Your task to perform on an android device: change the clock display to analog Image 0: 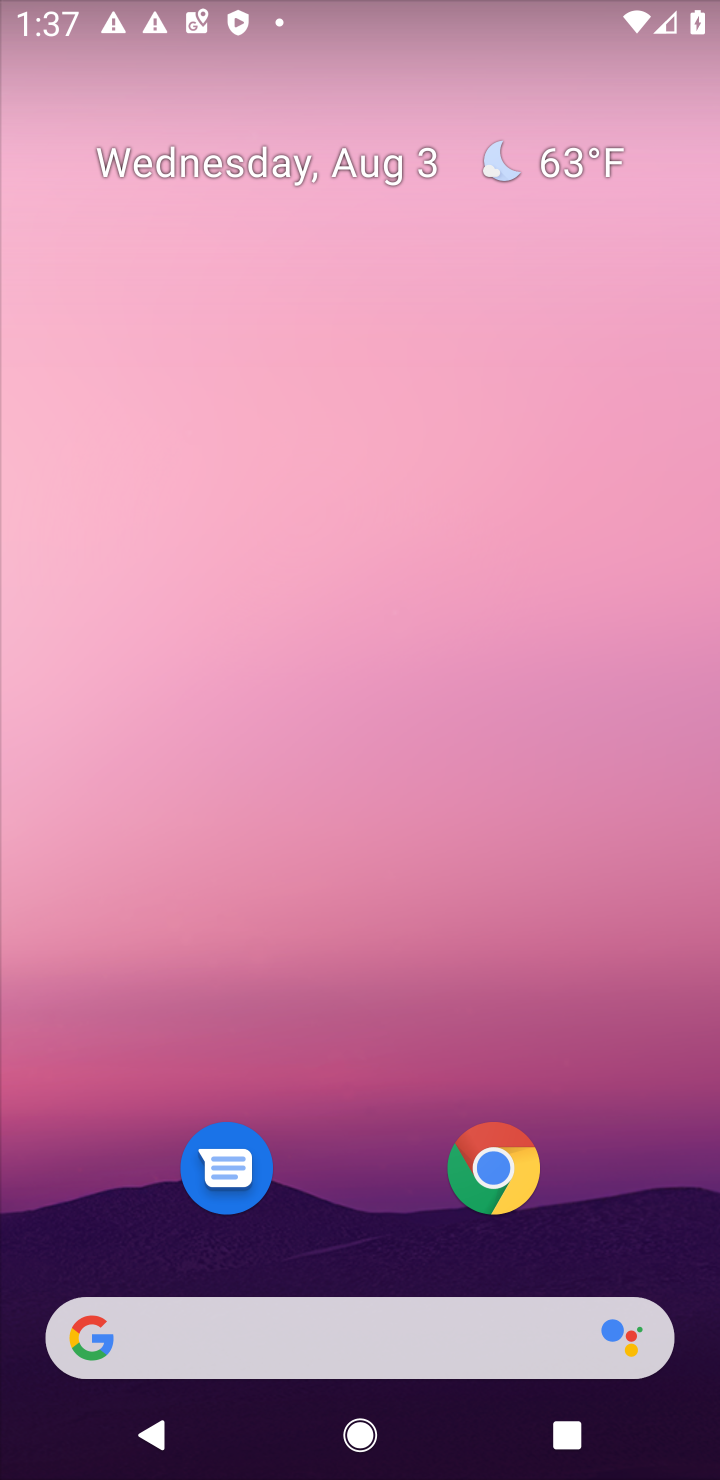
Step 0: drag from (665, 1214) to (590, 238)
Your task to perform on an android device: change the clock display to analog Image 1: 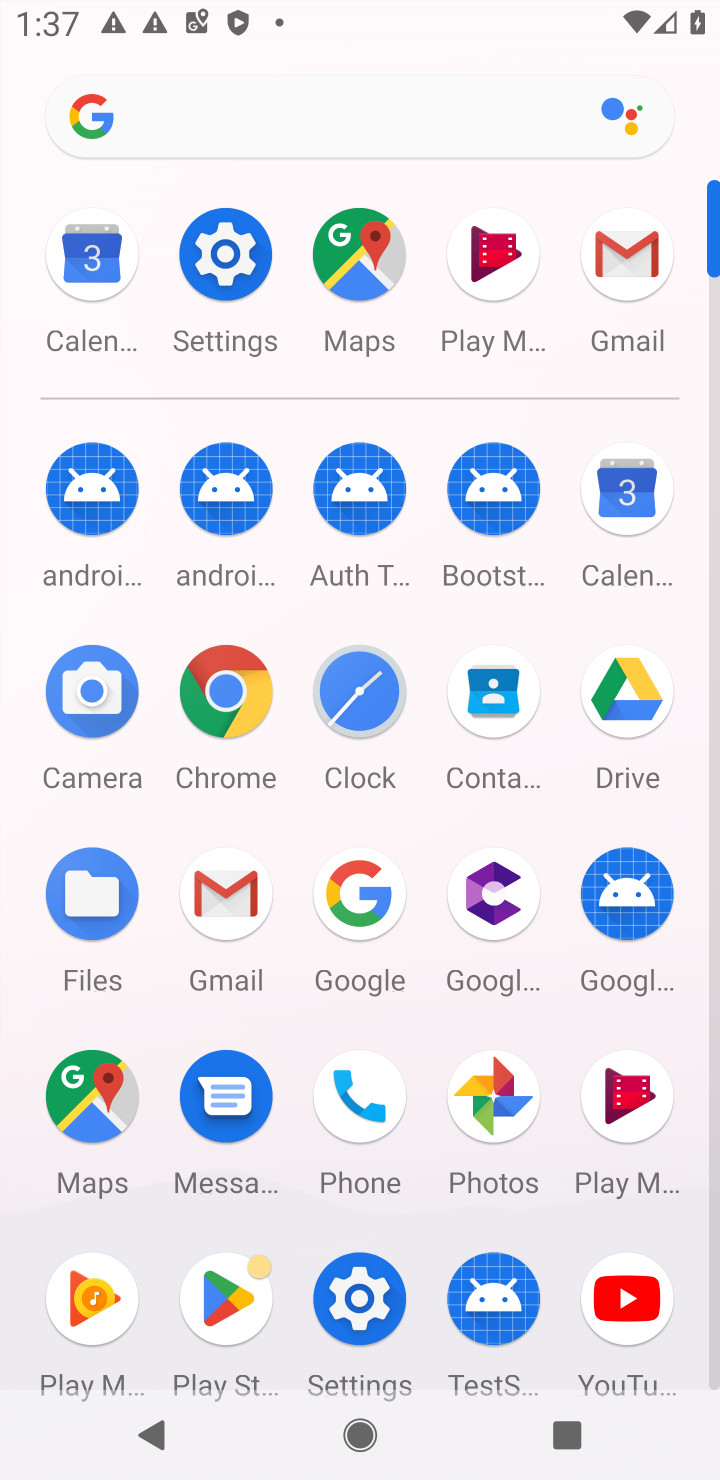
Step 1: click (354, 680)
Your task to perform on an android device: change the clock display to analog Image 2: 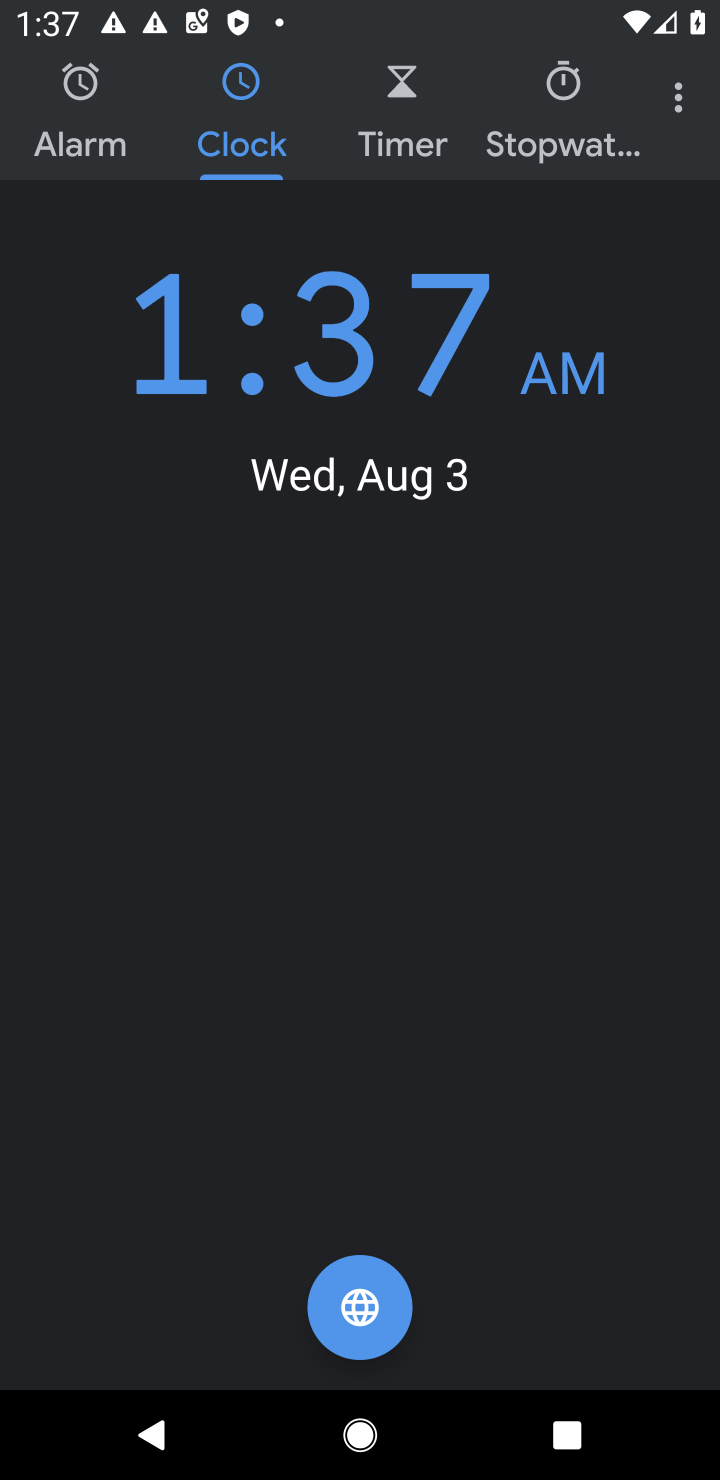
Step 2: click (675, 121)
Your task to perform on an android device: change the clock display to analog Image 3: 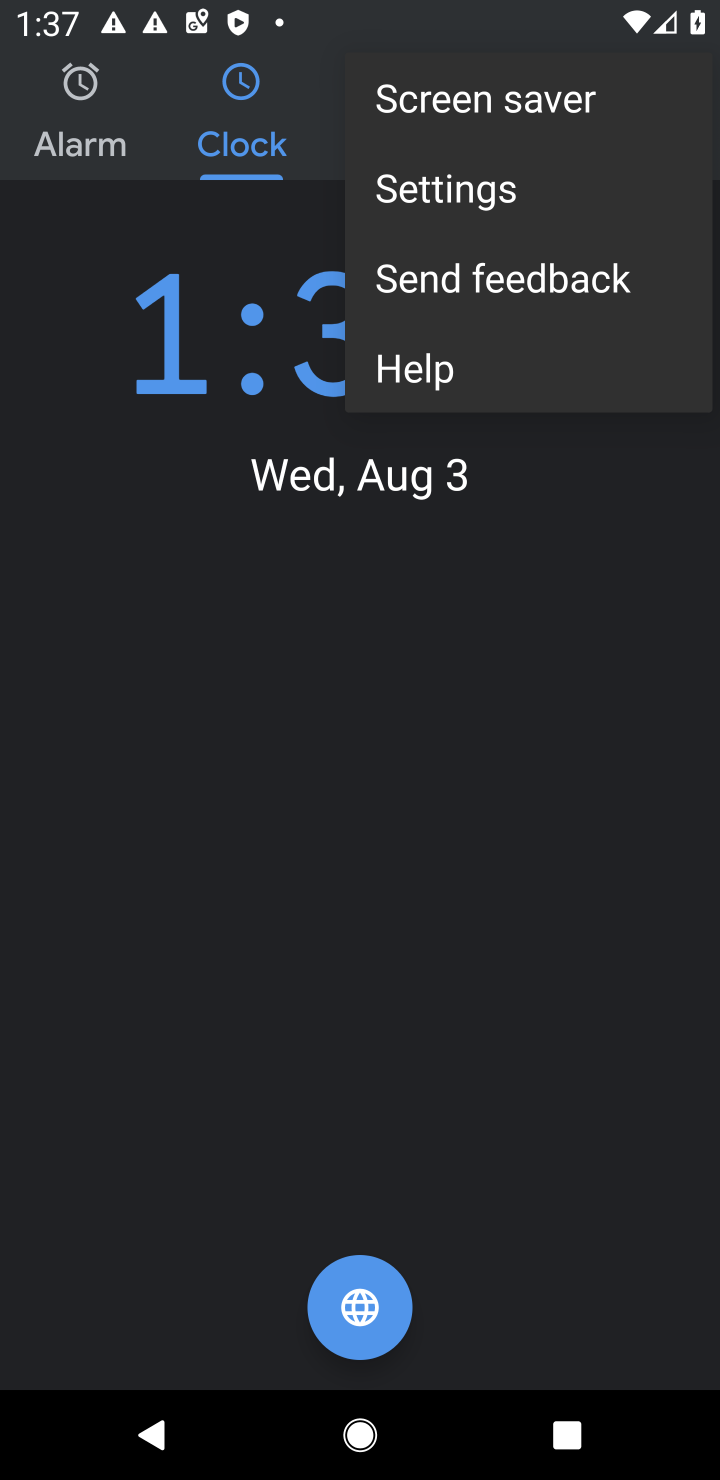
Step 3: click (438, 181)
Your task to perform on an android device: change the clock display to analog Image 4: 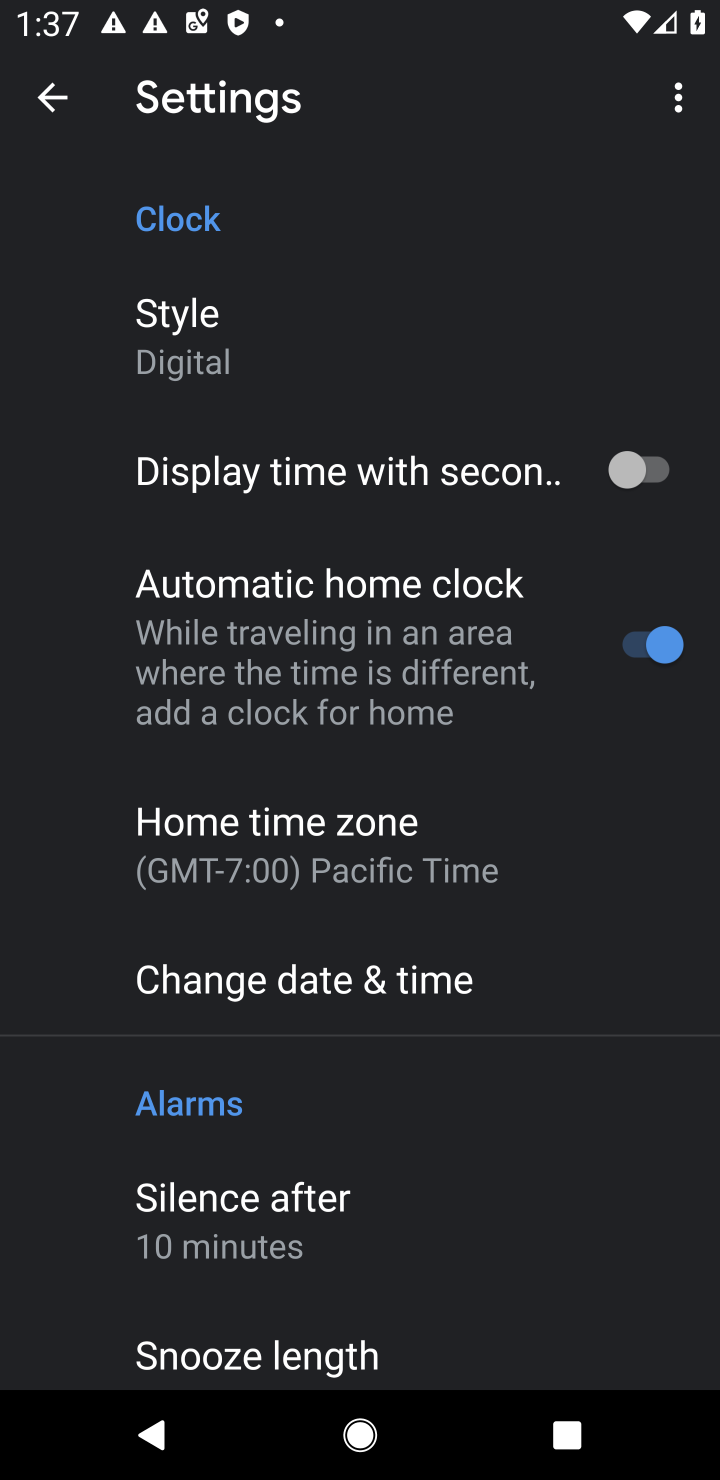
Step 4: click (190, 320)
Your task to perform on an android device: change the clock display to analog Image 5: 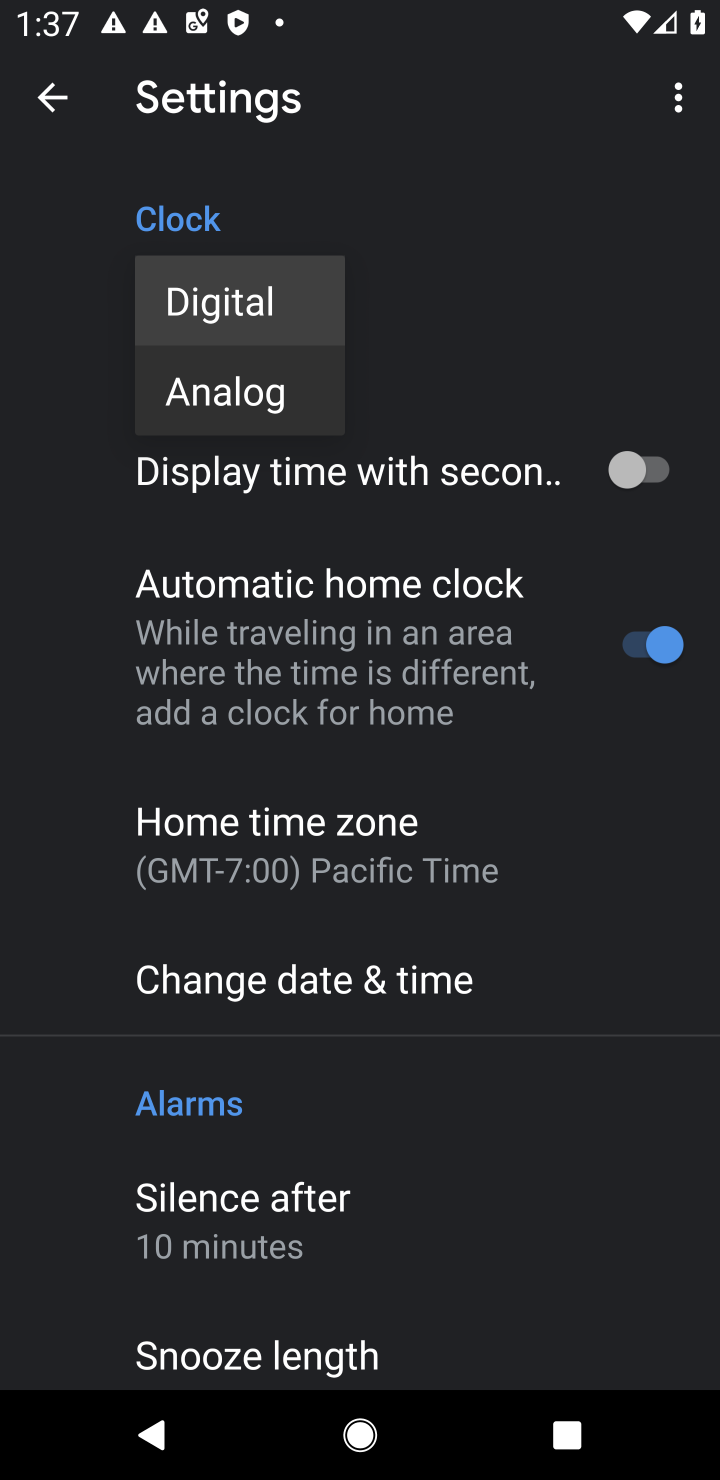
Step 5: click (221, 400)
Your task to perform on an android device: change the clock display to analog Image 6: 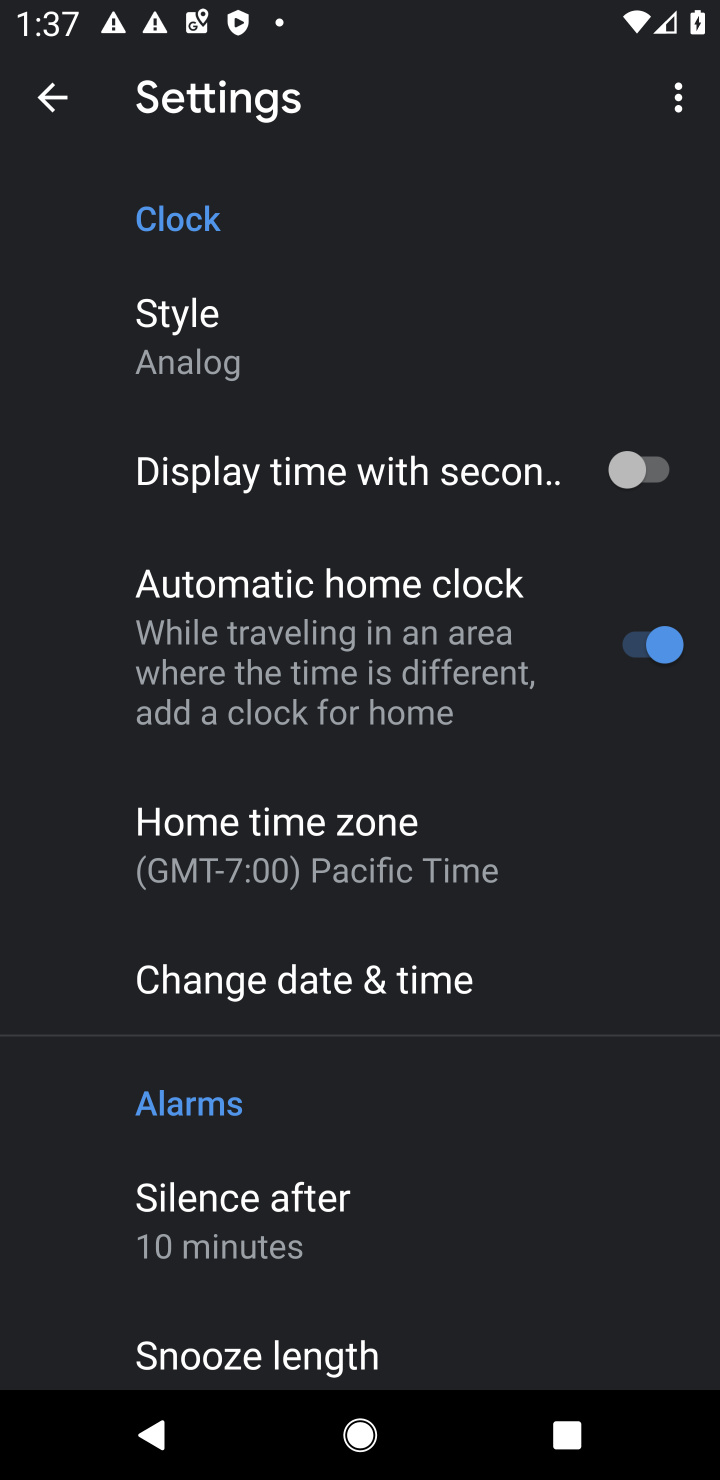
Step 6: task complete